Your task to perform on an android device: open app "ColorNote Notepad Notes" (install if not already installed) and enter user name: "unbridled@gmail.com" and password: "regularly" Image 0: 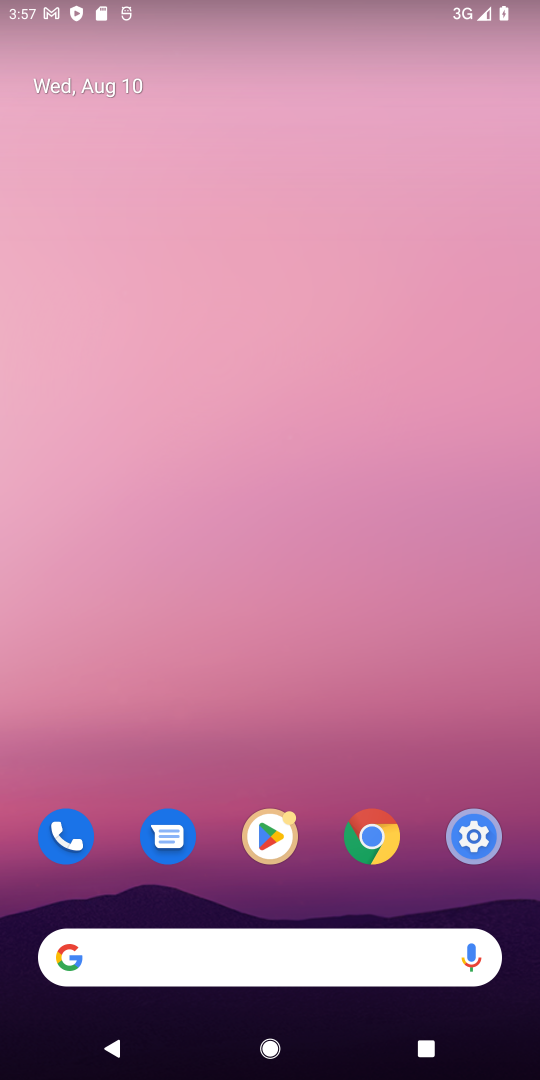
Step 0: drag from (169, 661) to (197, 86)
Your task to perform on an android device: open app "ColorNote Notepad Notes" (install if not already installed) and enter user name: "unbridled@gmail.com" and password: "regularly" Image 1: 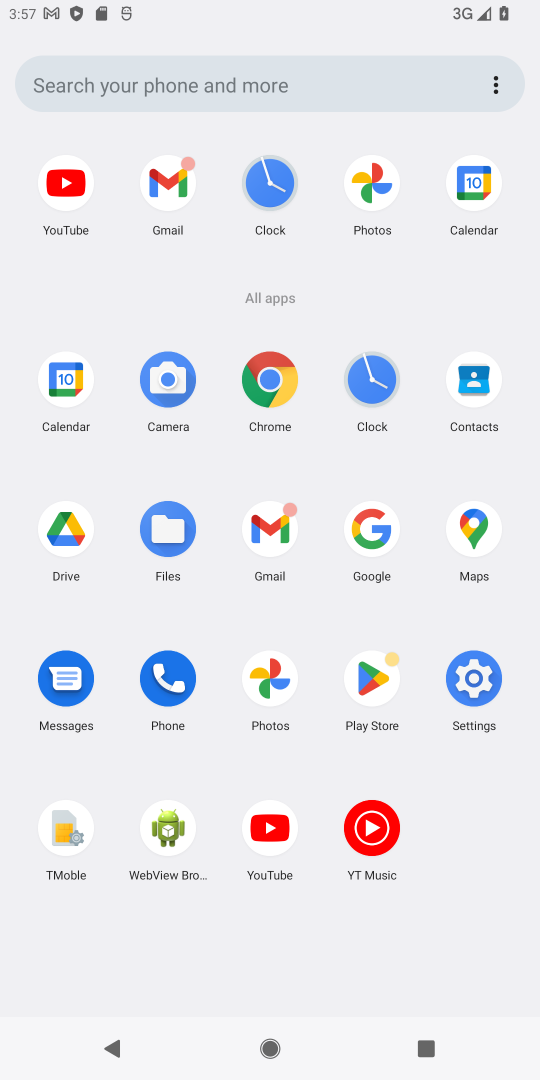
Step 1: drag from (266, 916) to (339, 368)
Your task to perform on an android device: open app "ColorNote Notepad Notes" (install if not already installed) and enter user name: "unbridled@gmail.com" and password: "regularly" Image 2: 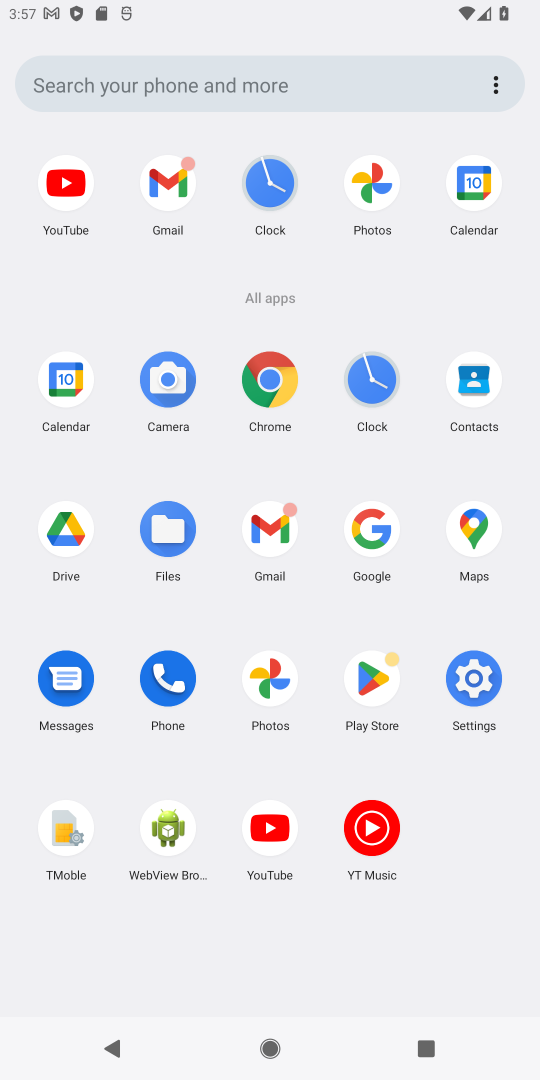
Step 2: click (383, 668)
Your task to perform on an android device: open app "ColorNote Notepad Notes" (install if not already installed) and enter user name: "unbridled@gmail.com" and password: "regularly" Image 3: 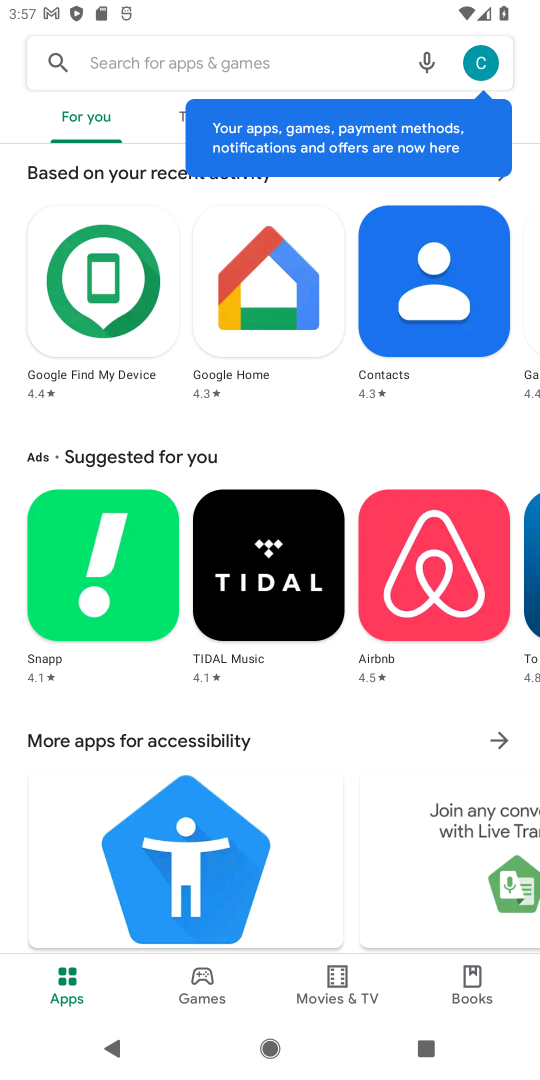
Step 3: click (146, 56)
Your task to perform on an android device: open app "ColorNote Notepad Notes" (install if not already installed) and enter user name: "unbridled@gmail.com" and password: "regularly" Image 4: 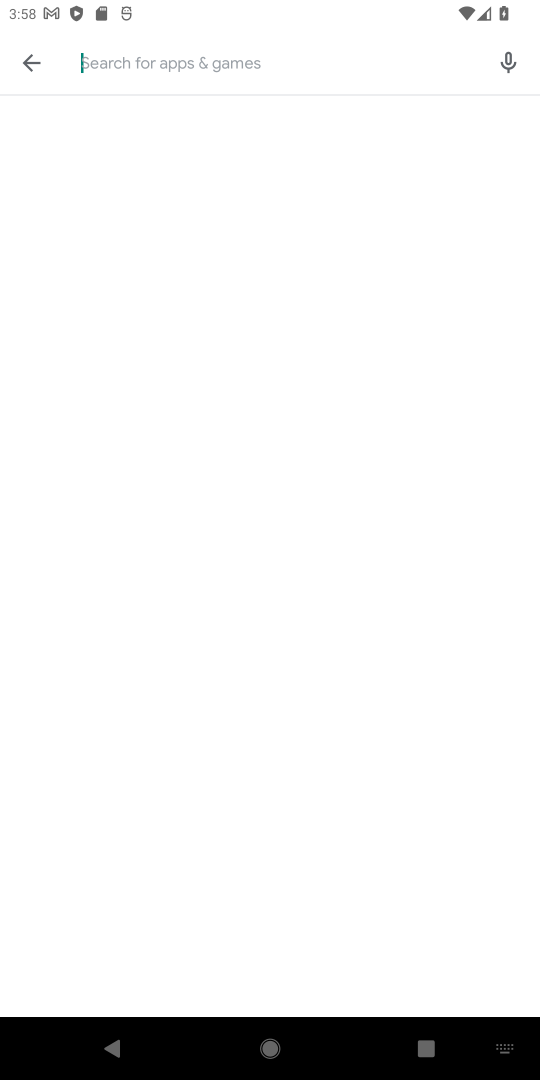
Step 4: click (195, 47)
Your task to perform on an android device: open app "ColorNote Notepad Notes" (install if not already installed) and enter user name: "unbridled@gmail.com" and password: "regularly" Image 5: 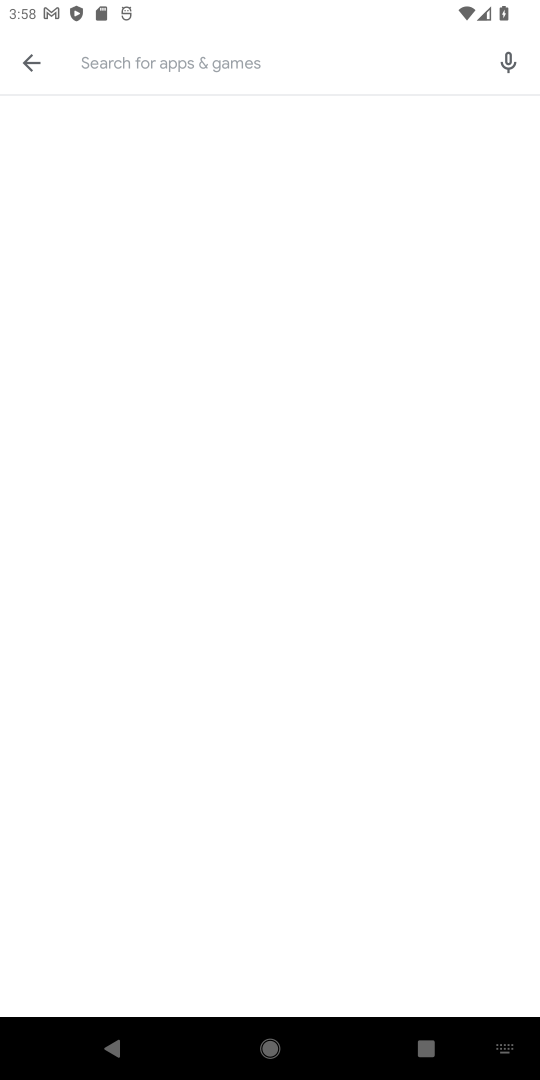
Step 5: type "ColorNote Notepad  "
Your task to perform on an android device: open app "ColorNote Notepad Notes" (install if not already installed) and enter user name: "unbridled@gmail.com" and password: "regularly" Image 6: 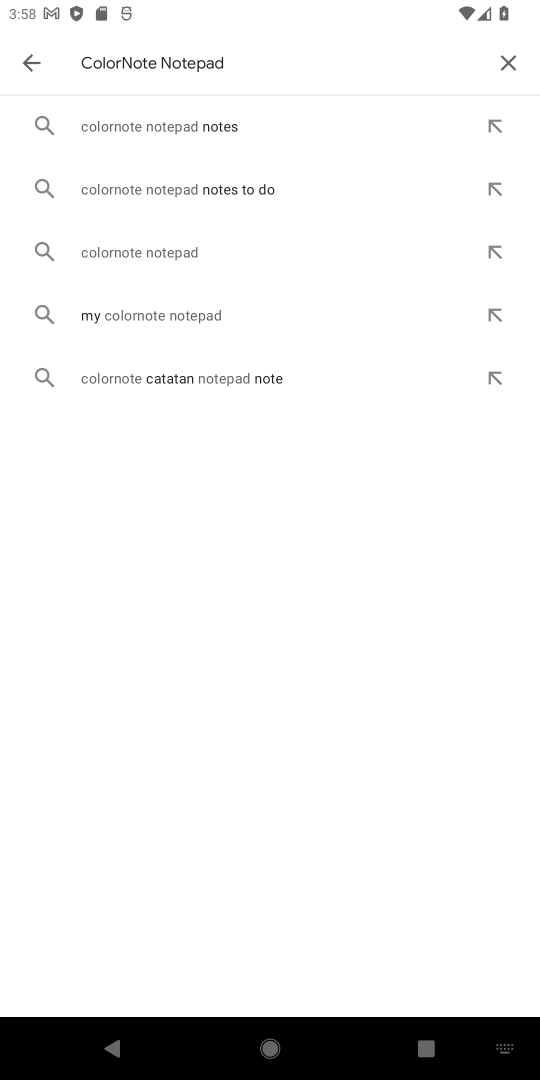
Step 6: click (168, 142)
Your task to perform on an android device: open app "ColorNote Notepad Notes" (install if not already installed) and enter user name: "unbridled@gmail.com" and password: "regularly" Image 7: 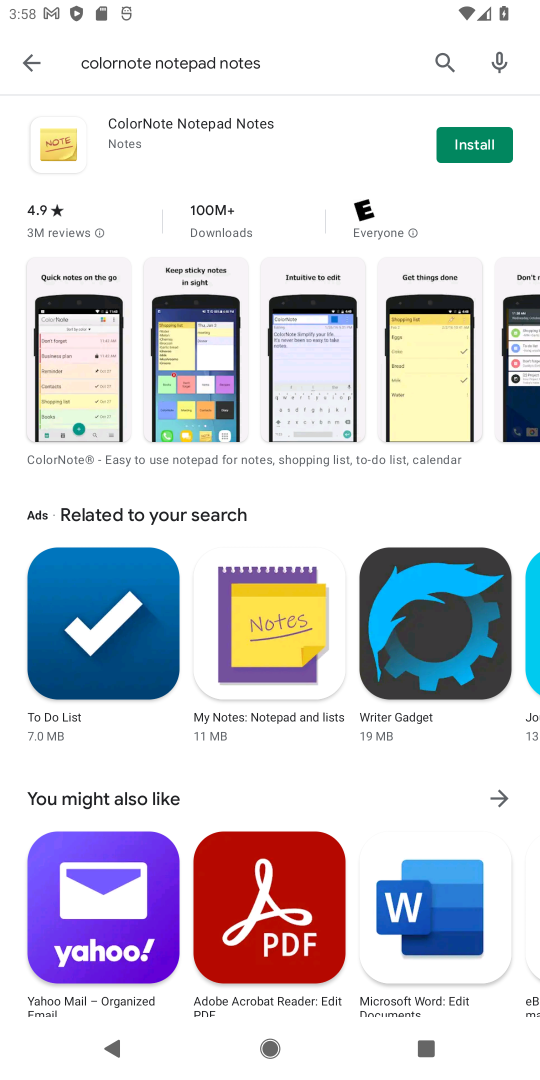
Step 7: click (494, 147)
Your task to perform on an android device: open app "ColorNote Notepad Notes" (install if not already installed) and enter user name: "unbridled@gmail.com" and password: "regularly" Image 8: 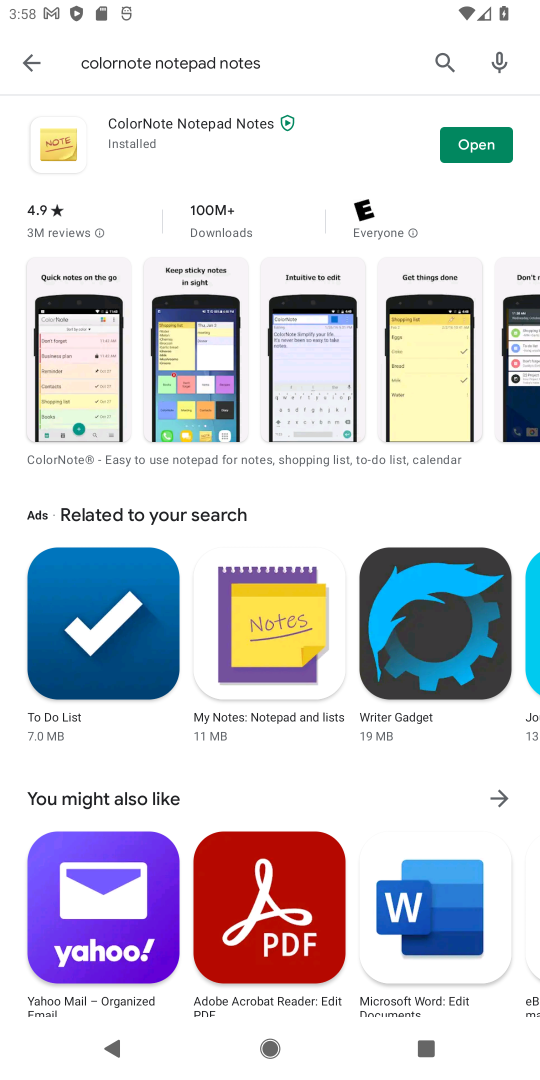
Step 8: click (466, 139)
Your task to perform on an android device: open app "ColorNote Notepad Notes" (install if not already installed) and enter user name: "unbridled@gmail.com" and password: "regularly" Image 9: 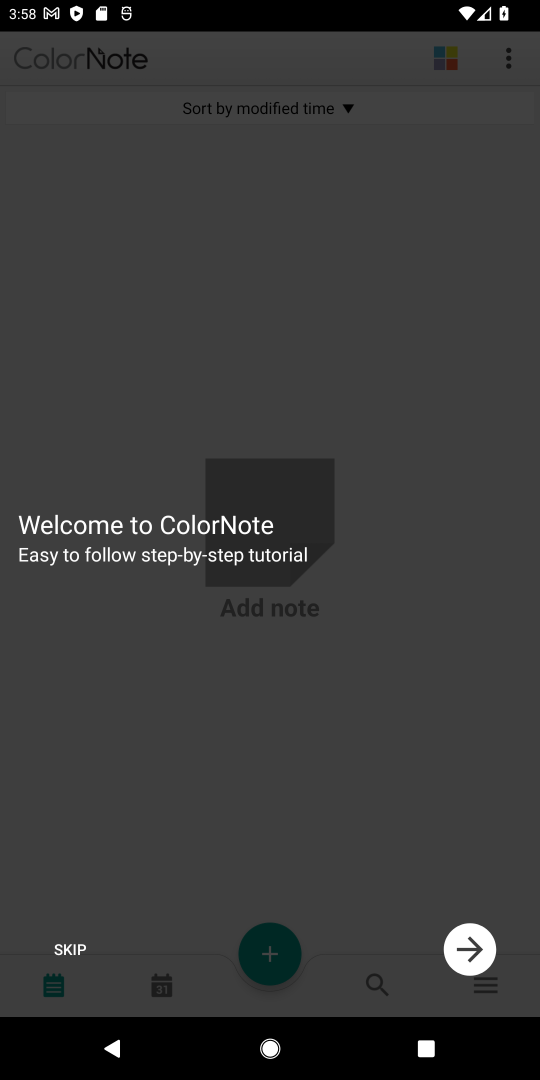
Step 9: click (424, 735)
Your task to perform on an android device: open app "ColorNote Notepad Notes" (install if not already installed) and enter user name: "unbridled@gmail.com" and password: "regularly" Image 10: 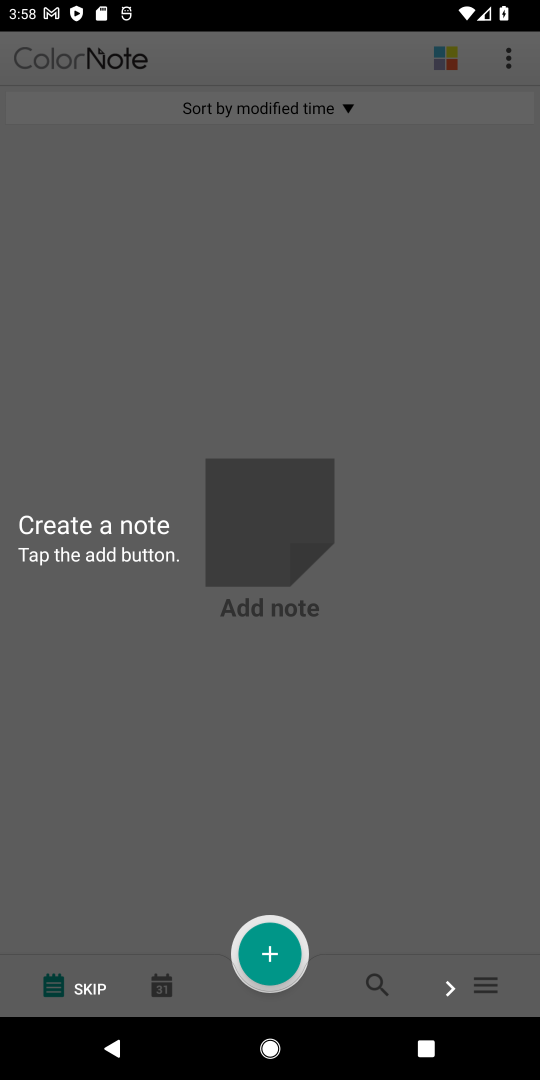
Step 10: task complete